Your task to perform on an android device: clear history in the chrome app Image 0: 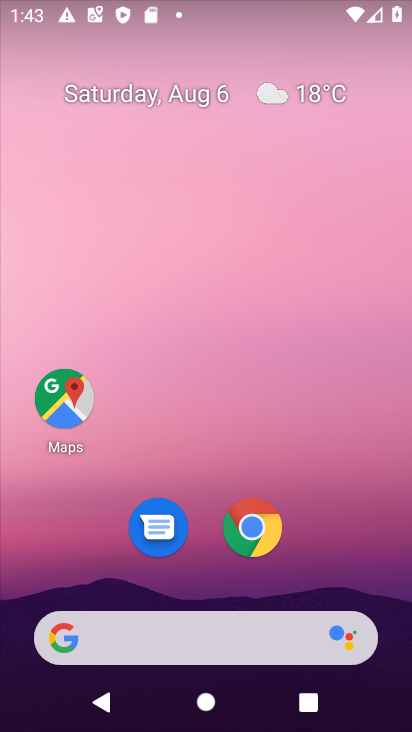
Step 0: drag from (210, 525) to (243, 84)
Your task to perform on an android device: clear history in the chrome app Image 1: 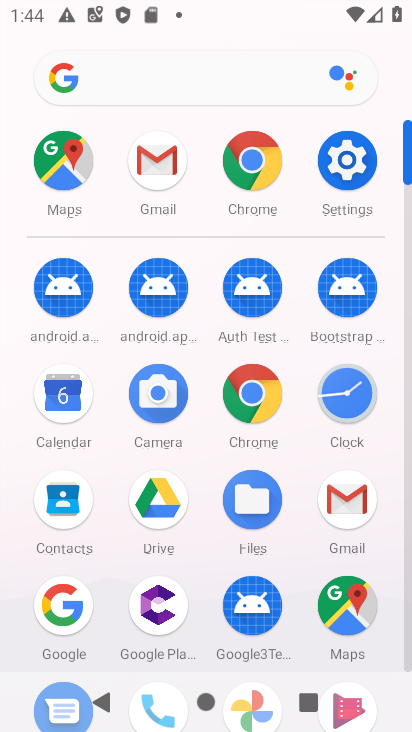
Step 1: click (249, 407)
Your task to perform on an android device: clear history in the chrome app Image 2: 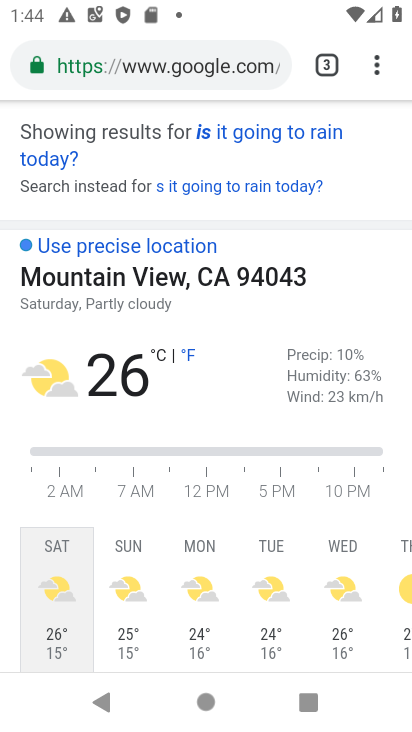
Step 2: click (375, 63)
Your task to perform on an android device: clear history in the chrome app Image 3: 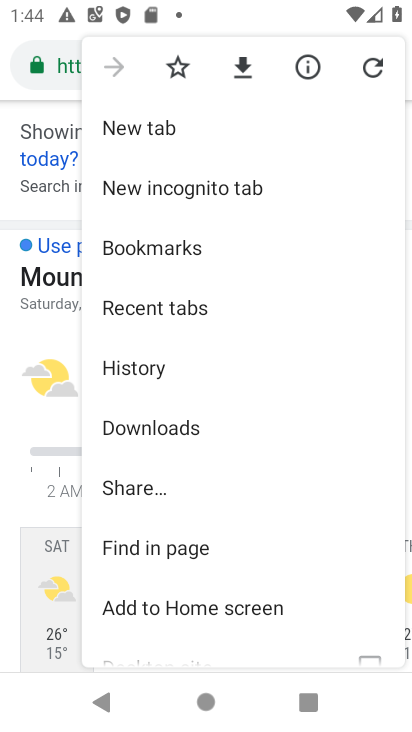
Step 3: click (164, 377)
Your task to perform on an android device: clear history in the chrome app Image 4: 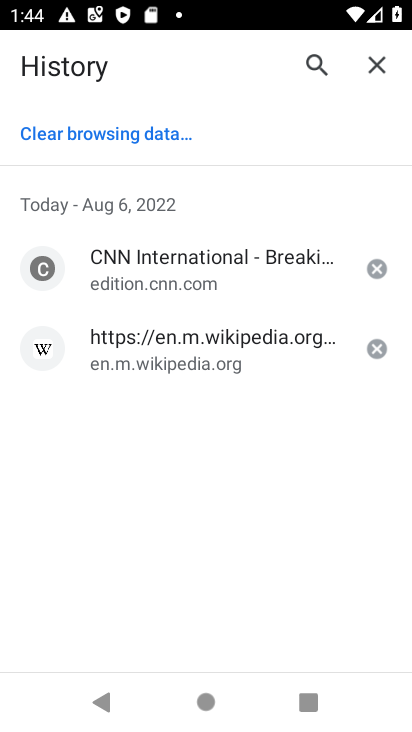
Step 4: click (148, 132)
Your task to perform on an android device: clear history in the chrome app Image 5: 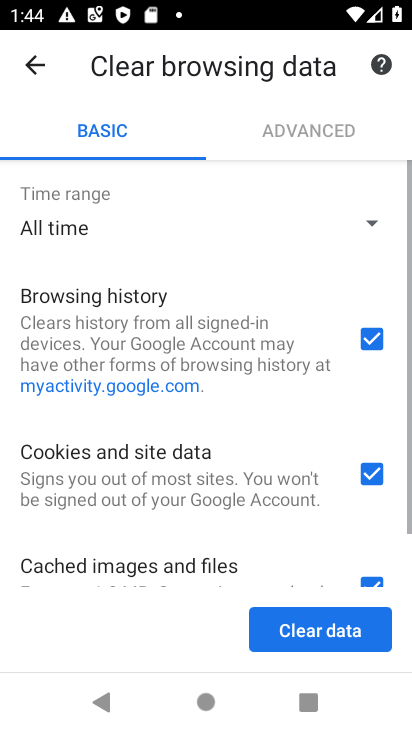
Step 5: click (348, 638)
Your task to perform on an android device: clear history in the chrome app Image 6: 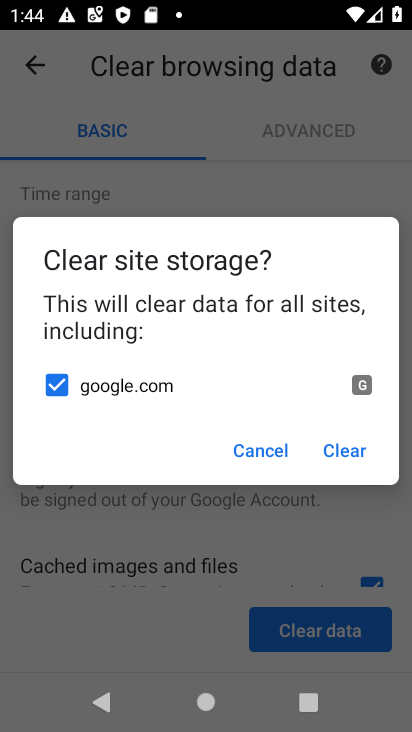
Step 6: click (363, 449)
Your task to perform on an android device: clear history in the chrome app Image 7: 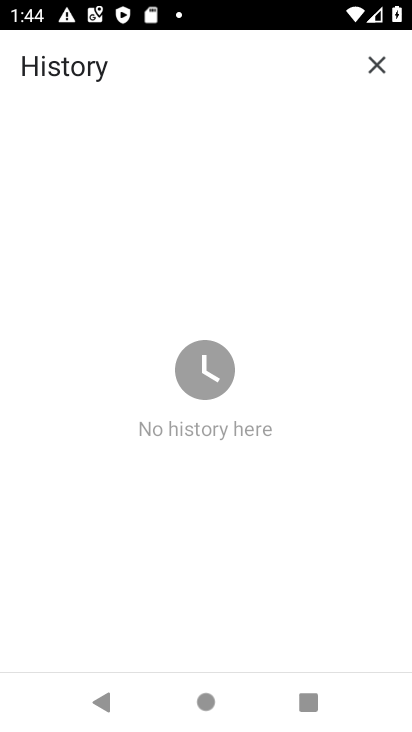
Step 7: task complete